Your task to perform on an android device: Go to privacy settings Image 0: 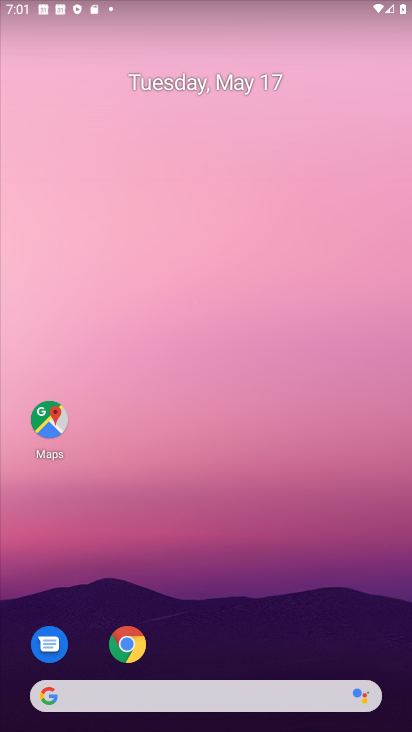
Step 0: drag from (389, 648) to (320, 82)
Your task to perform on an android device: Go to privacy settings Image 1: 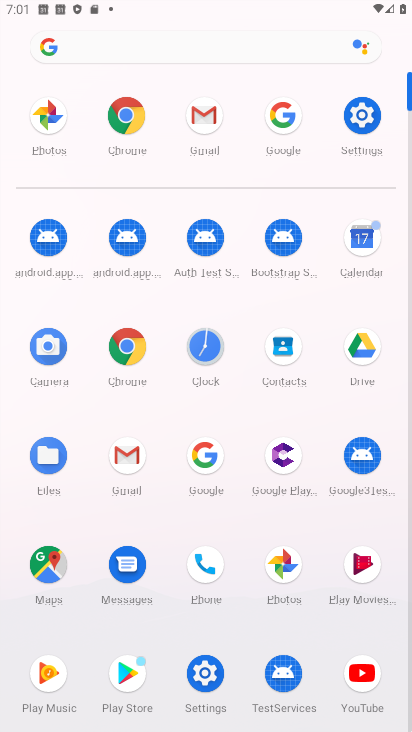
Step 1: click (364, 127)
Your task to perform on an android device: Go to privacy settings Image 2: 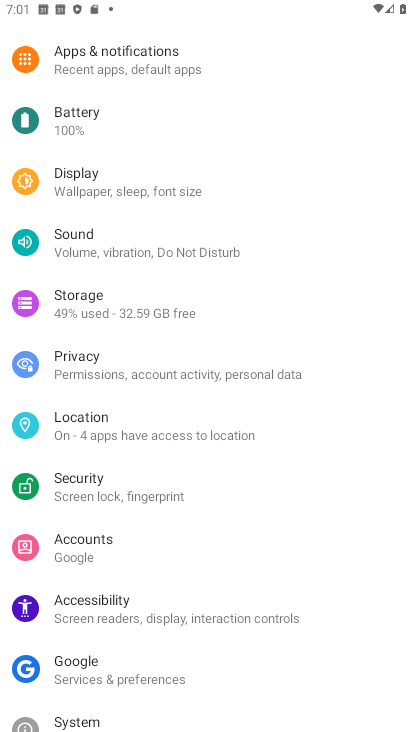
Step 2: click (120, 363)
Your task to perform on an android device: Go to privacy settings Image 3: 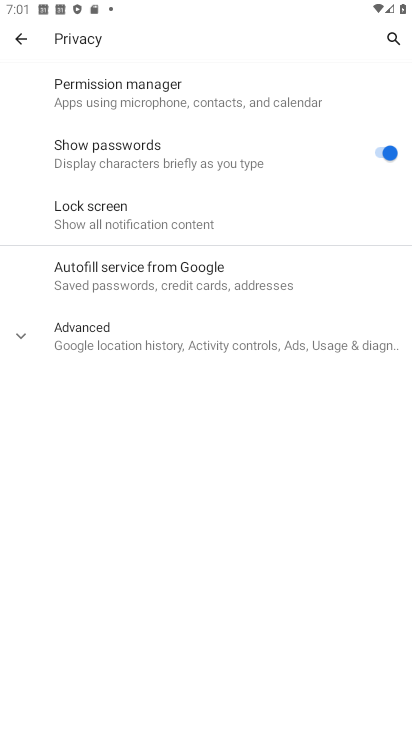
Step 3: task complete